Your task to perform on an android device: turn notification dots off Image 0: 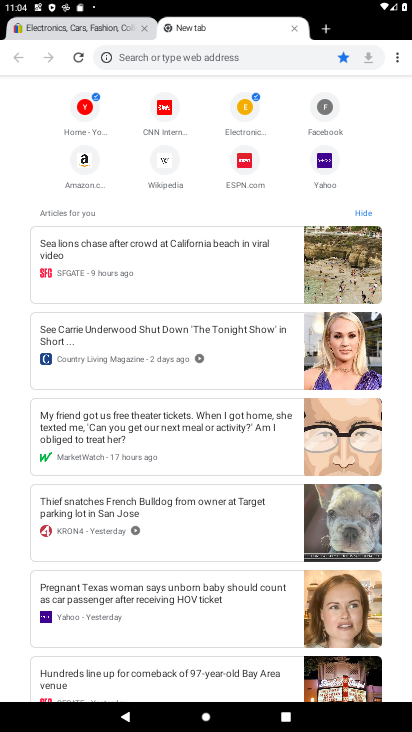
Step 0: drag from (273, 628) to (249, 129)
Your task to perform on an android device: turn notification dots off Image 1: 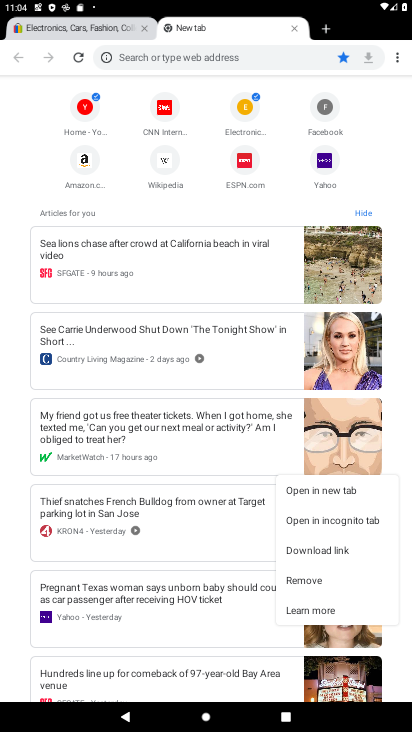
Step 1: press home button
Your task to perform on an android device: turn notification dots off Image 2: 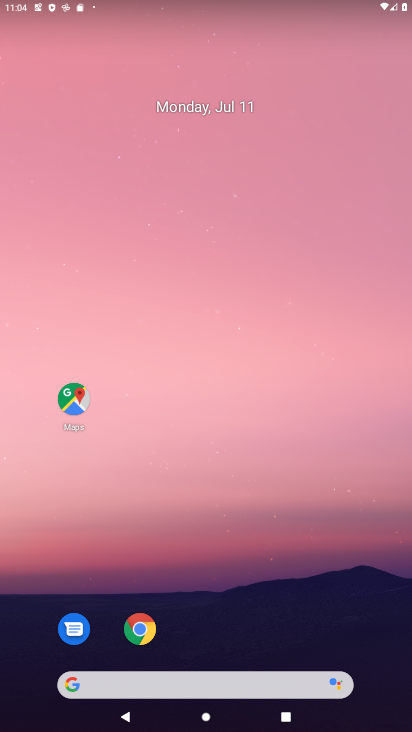
Step 2: drag from (308, 665) to (288, 23)
Your task to perform on an android device: turn notification dots off Image 3: 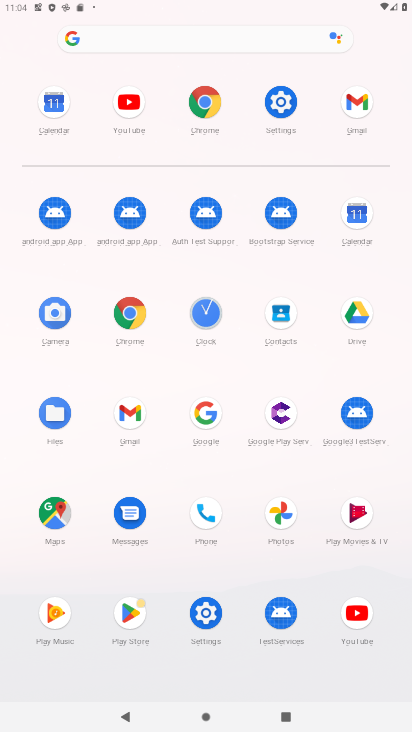
Step 3: click (286, 107)
Your task to perform on an android device: turn notification dots off Image 4: 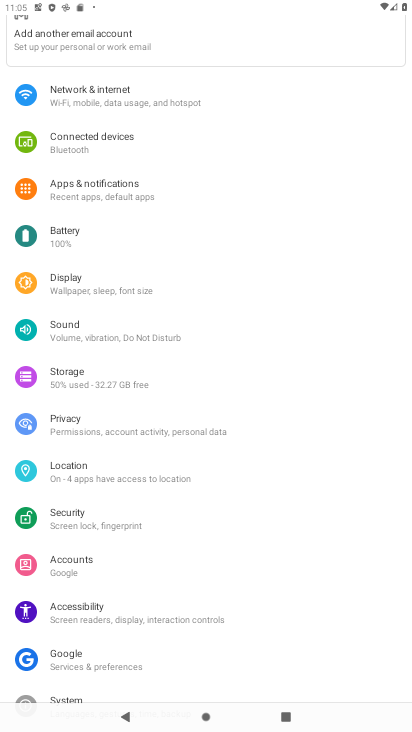
Step 4: click (140, 200)
Your task to perform on an android device: turn notification dots off Image 5: 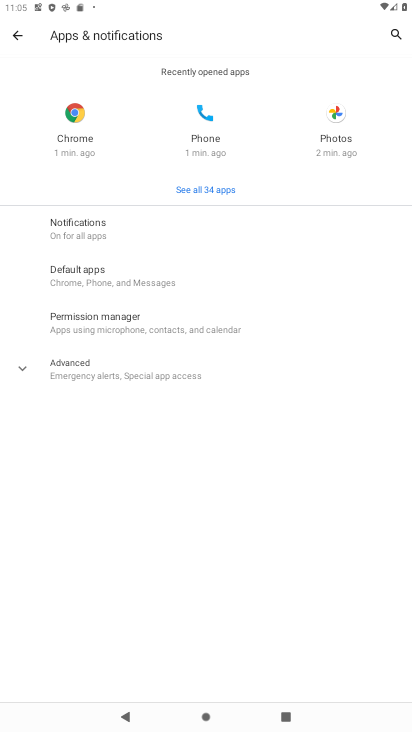
Step 5: click (164, 376)
Your task to perform on an android device: turn notification dots off Image 6: 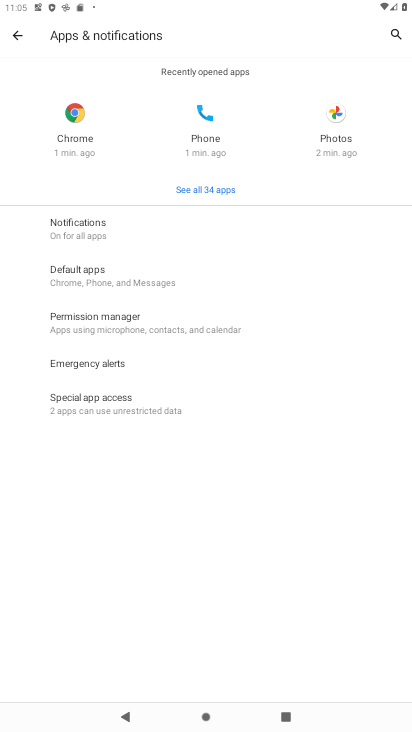
Step 6: click (171, 409)
Your task to perform on an android device: turn notification dots off Image 7: 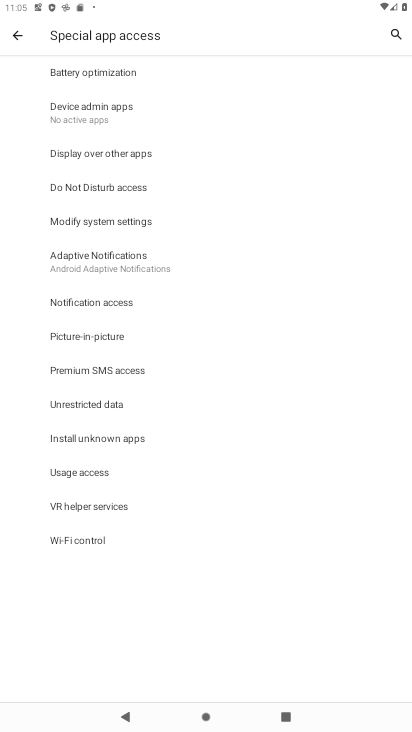
Step 7: click (10, 46)
Your task to perform on an android device: turn notification dots off Image 8: 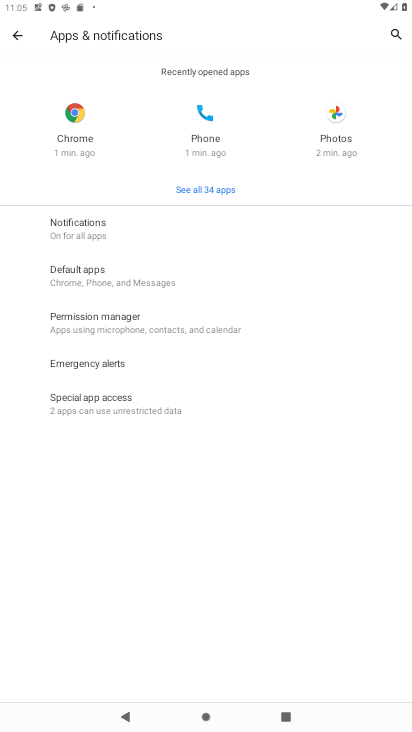
Step 8: click (106, 221)
Your task to perform on an android device: turn notification dots off Image 9: 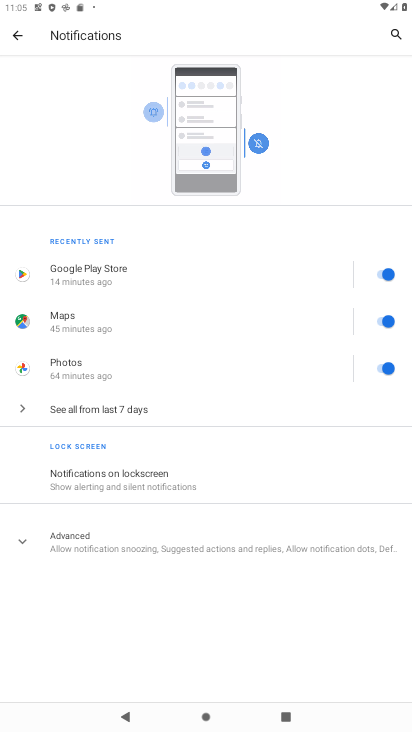
Step 9: click (135, 536)
Your task to perform on an android device: turn notification dots off Image 10: 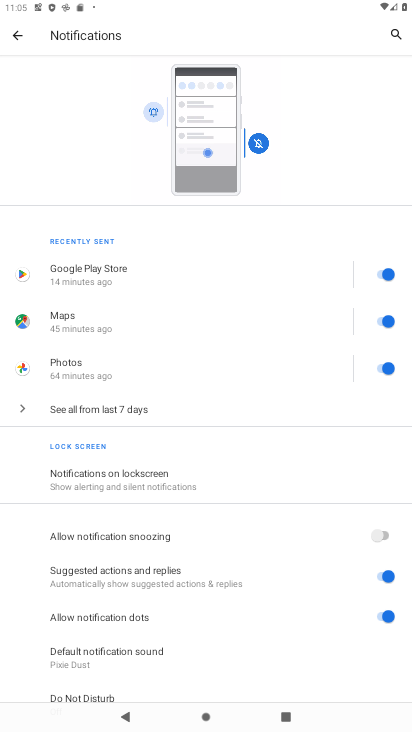
Step 10: click (381, 612)
Your task to perform on an android device: turn notification dots off Image 11: 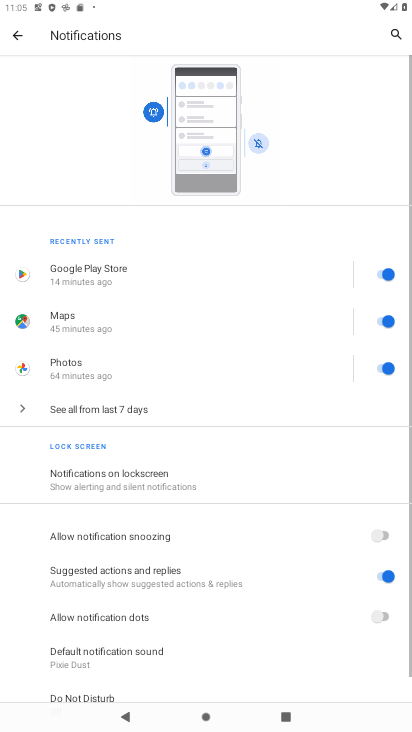
Step 11: task complete